Your task to perform on an android device: What's the weather going to be tomorrow? Image 0: 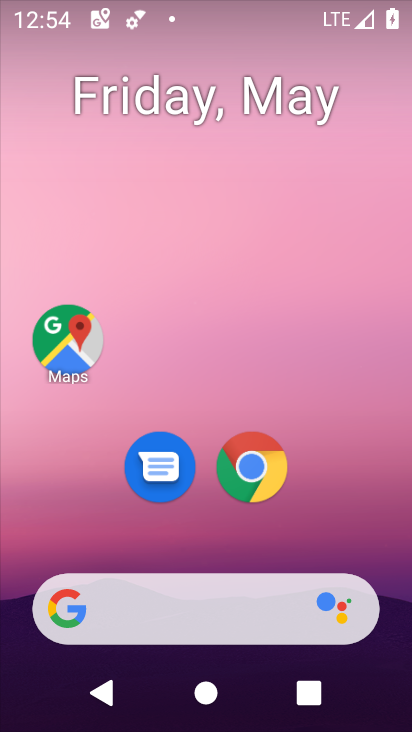
Step 0: drag from (366, 501) to (38, 9)
Your task to perform on an android device: What's the weather going to be tomorrow? Image 1: 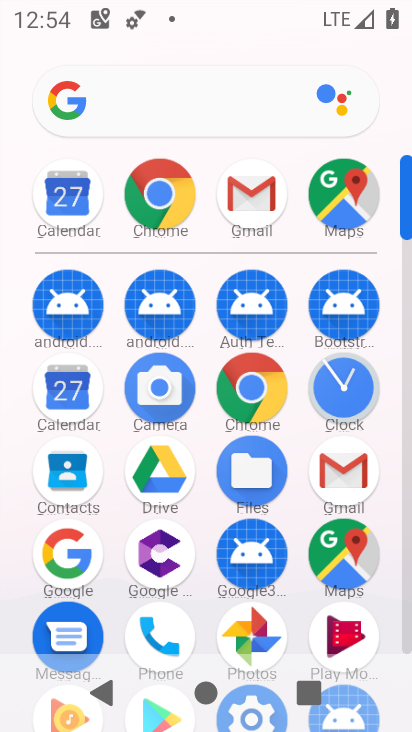
Step 1: click (85, 112)
Your task to perform on an android device: What's the weather going to be tomorrow? Image 2: 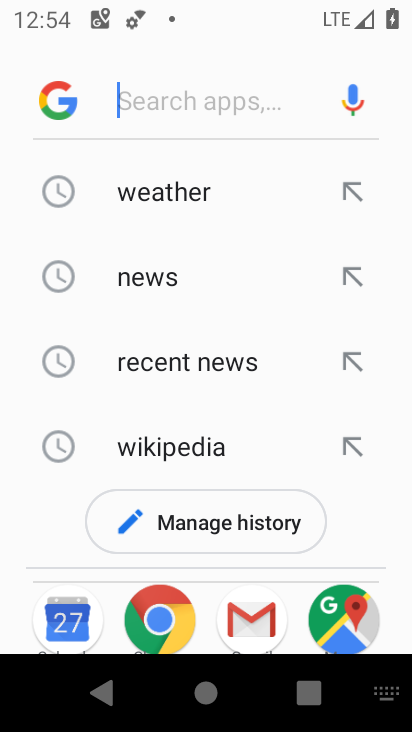
Step 2: click (79, 107)
Your task to perform on an android device: What's the weather going to be tomorrow? Image 3: 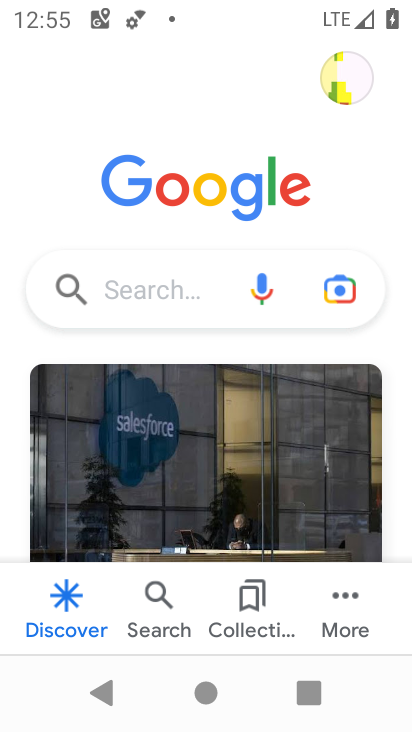
Step 3: task complete